Your task to perform on an android device: Show me popular videos on Youtube Image 0: 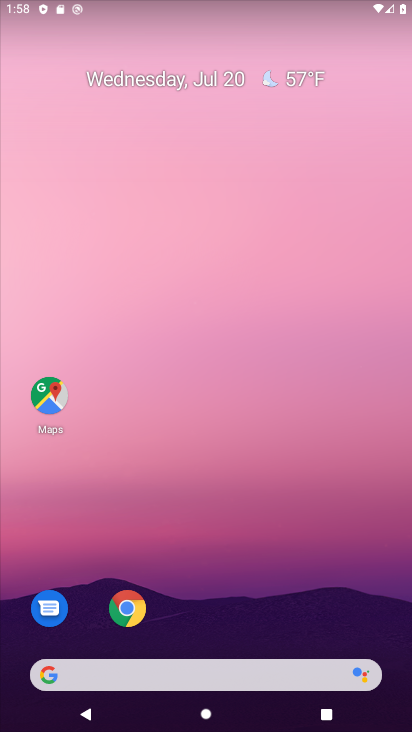
Step 0: drag from (205, 635) to (147, 6)
Your task to perform on an android device: Show me popular videos on Youtube Image 1: 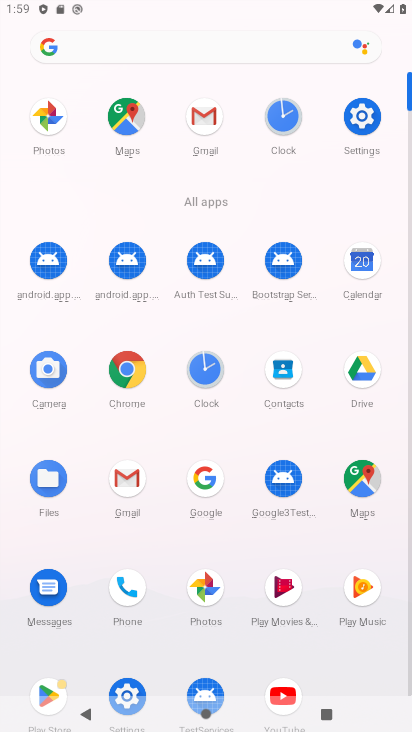
Step 1: click (279, 684)
Your task to perform on an android device: Show me popular videos on Youtube Image 2: 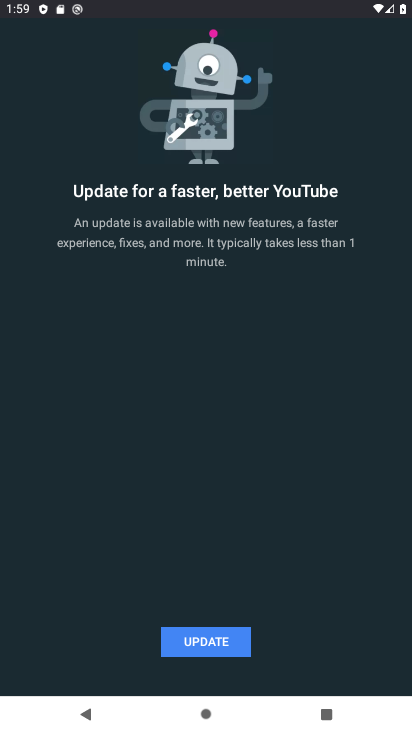
Step 2: click (197, 639)
Your task to perform on an android device: Show me popular videos on Youtube Image 3: 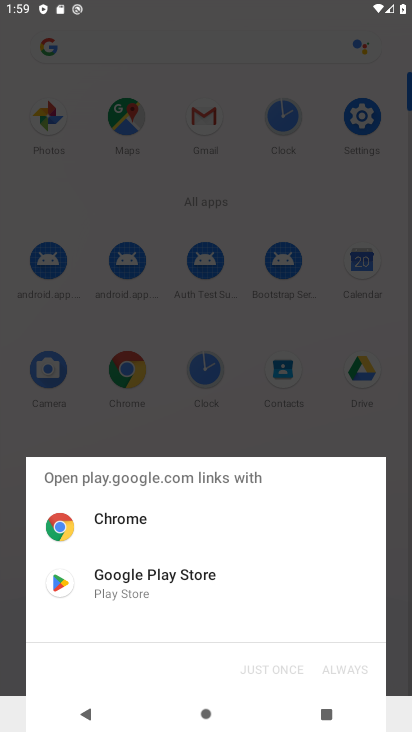
Step 3: click (126, 591)
Your task to perform on an android device: Show me popular videos on Youtube Image 4: 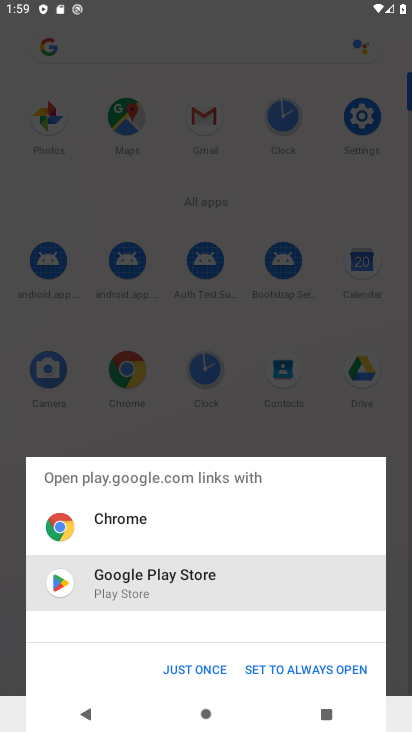
Step 4: click (196, 675)
Your task to perform on an android device: Show me popular videos on Youtube Image 5: 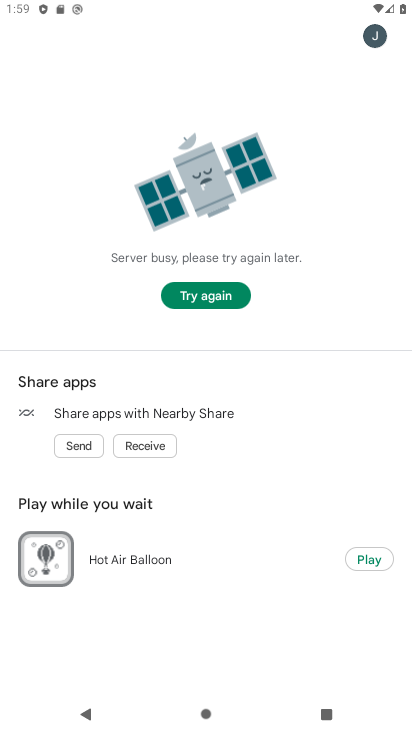
Step 5: task complete